Your task to perform on an android device: What's on my calendar today? Image 0: 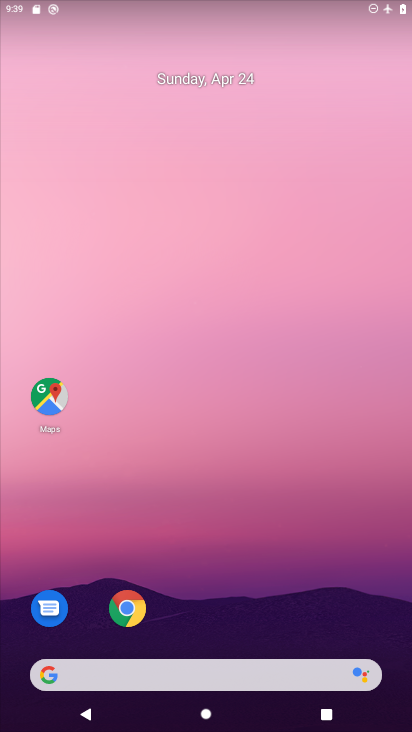
Step 0: drag from (202, 617) to (198, 160)
Your task to perform on an android device: What's on my calendar today? Image 1: 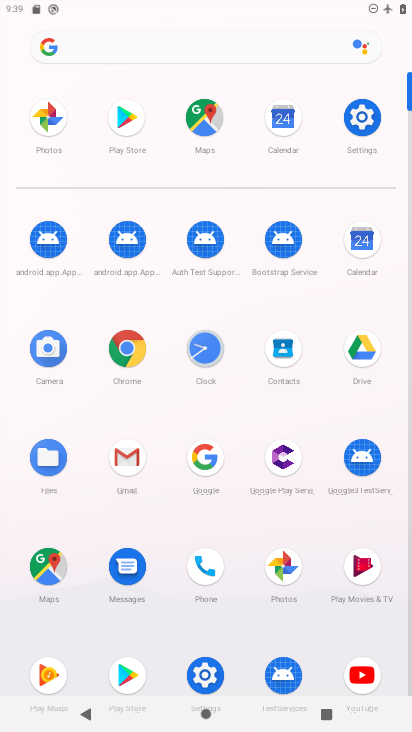
Step 1: click (353, 246)
Your task to perform on an android device: What's on my calendar today? Image 2: 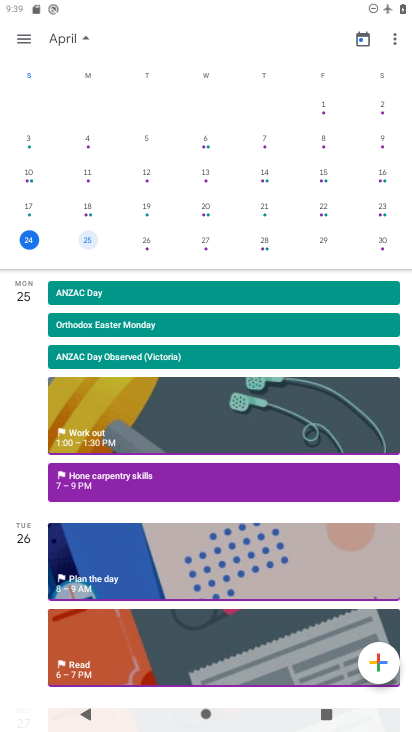
Step 2: click (35, 239)
Your task to perform on an android device: What's on my calendar today? Image 3: 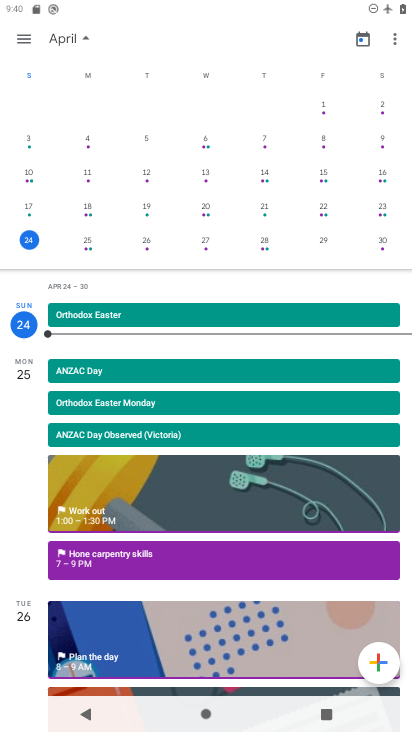
Step 3: task complete